Your task to perform on an android device: Clear all items from cart on amazon.com. Image 0: 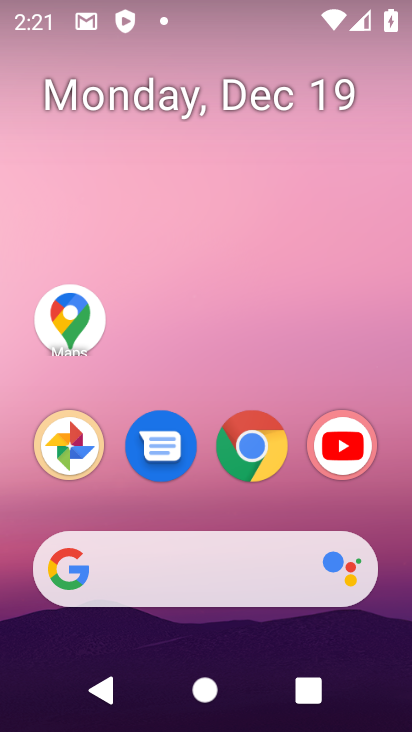
Step 0: click (247, 438)
Your task to perform on an android device: Clear all items from cart on amazon.com. Image 1: 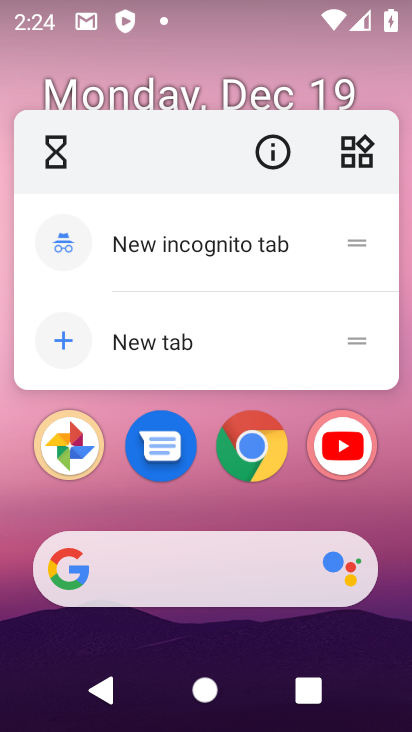
Step 1: task complete